Your task to perform on an android device: delete a single message in the gmail app Image 0: 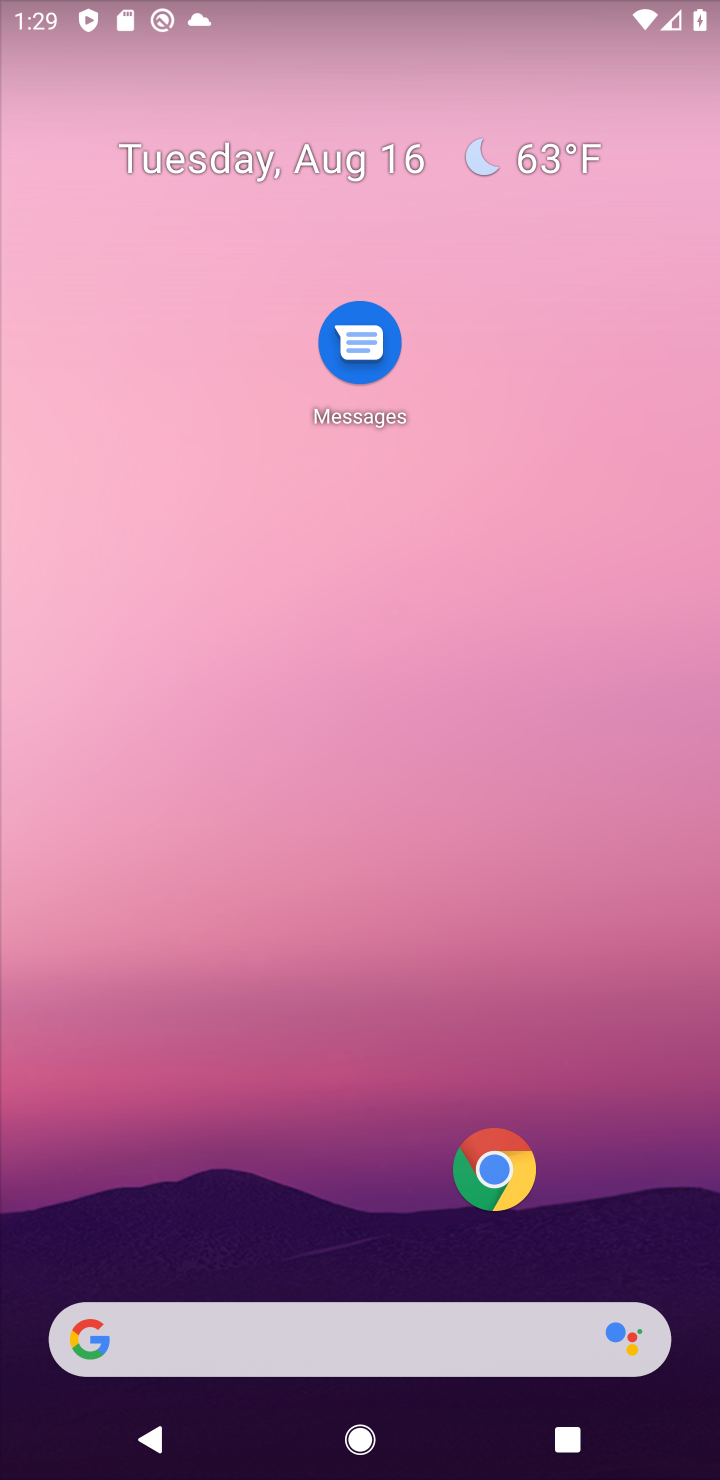
Step 0: drag from (53, 1422) to (445, 489)
Your task to perform on an android device: delete a single message in the gmail app Image 1: 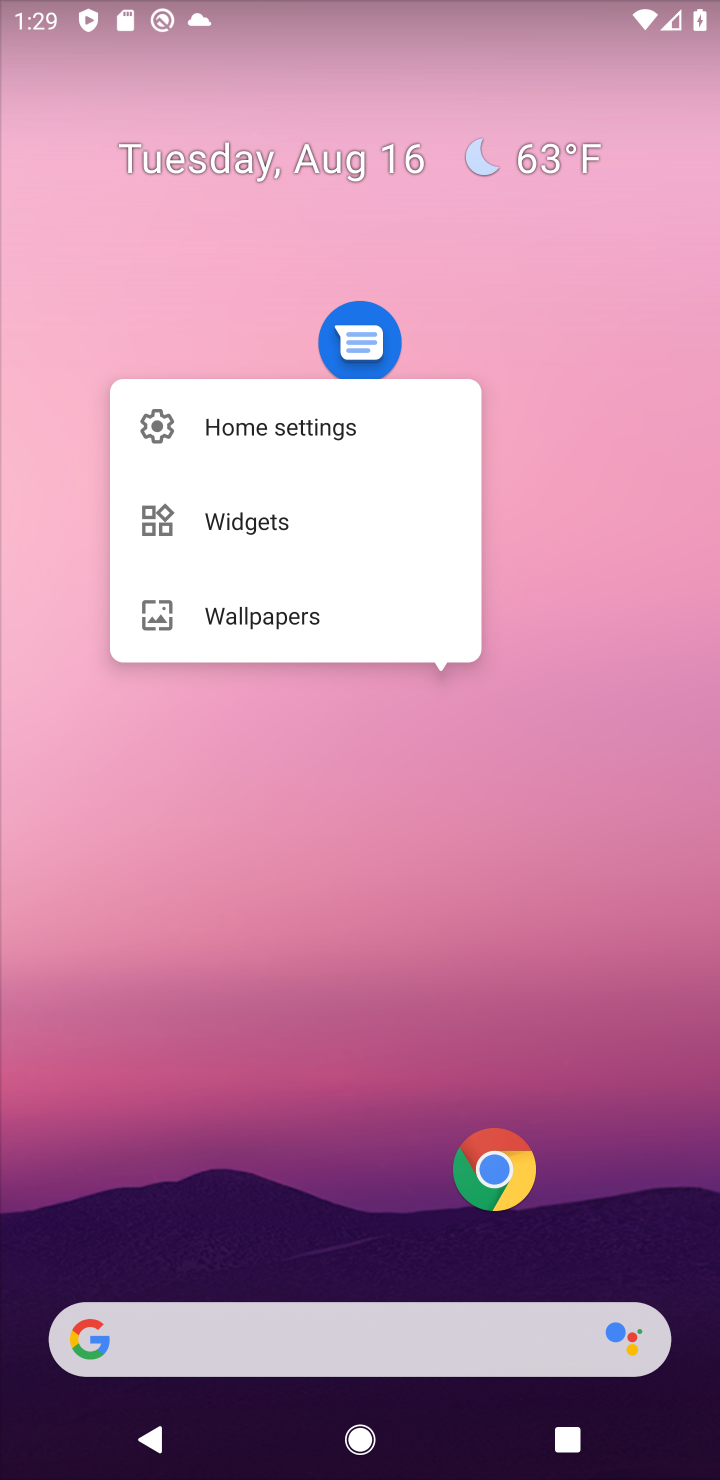
Step 1: drag from (69, 1401) to (620, 575)
Your task to perform on an android device: delete a single message in the gmail app Image 2: 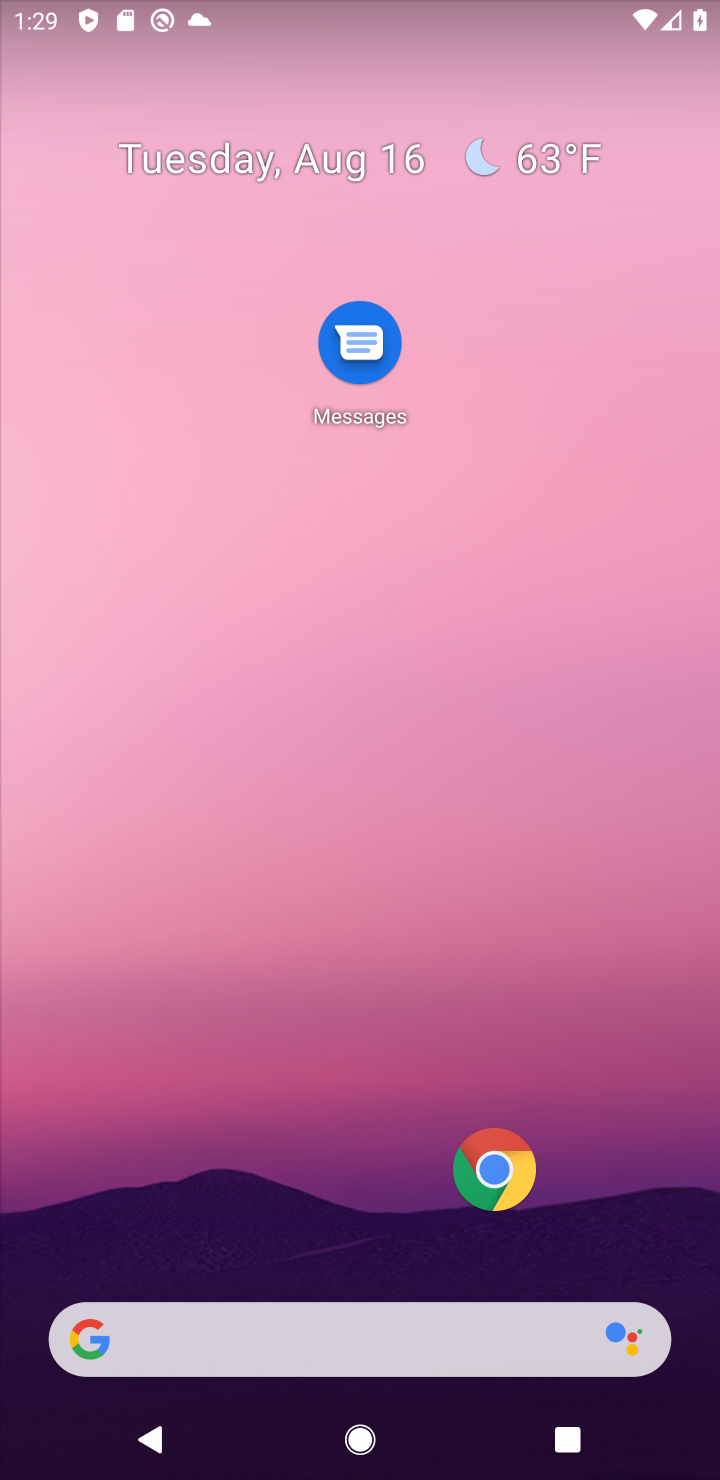
Step 2: drag from (60, 1416) to (376, 569)
Your task to perform on an android device: delete a single message in the gmail app Image 3: 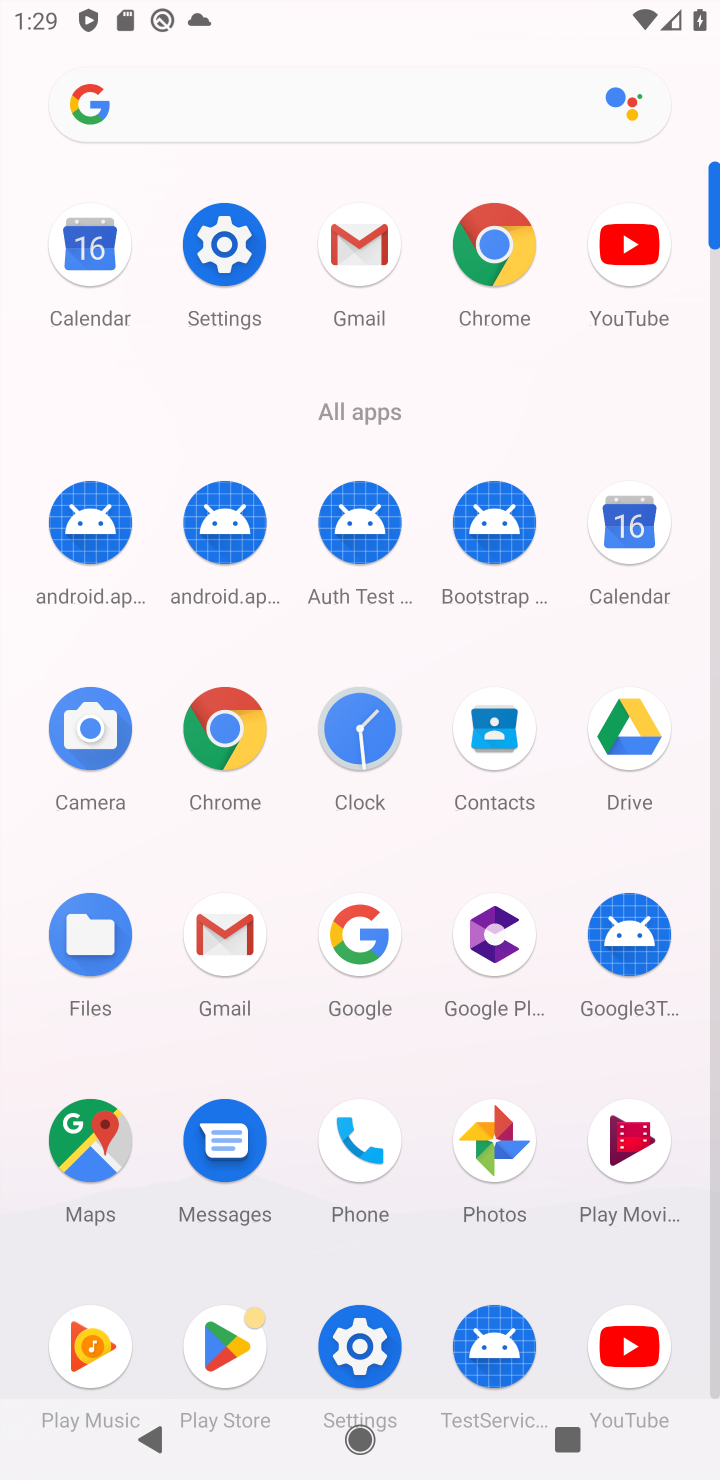
Step 3: click (356, 265)
Your task to perform on an android device: delete a single message in the gmail app Image 4: 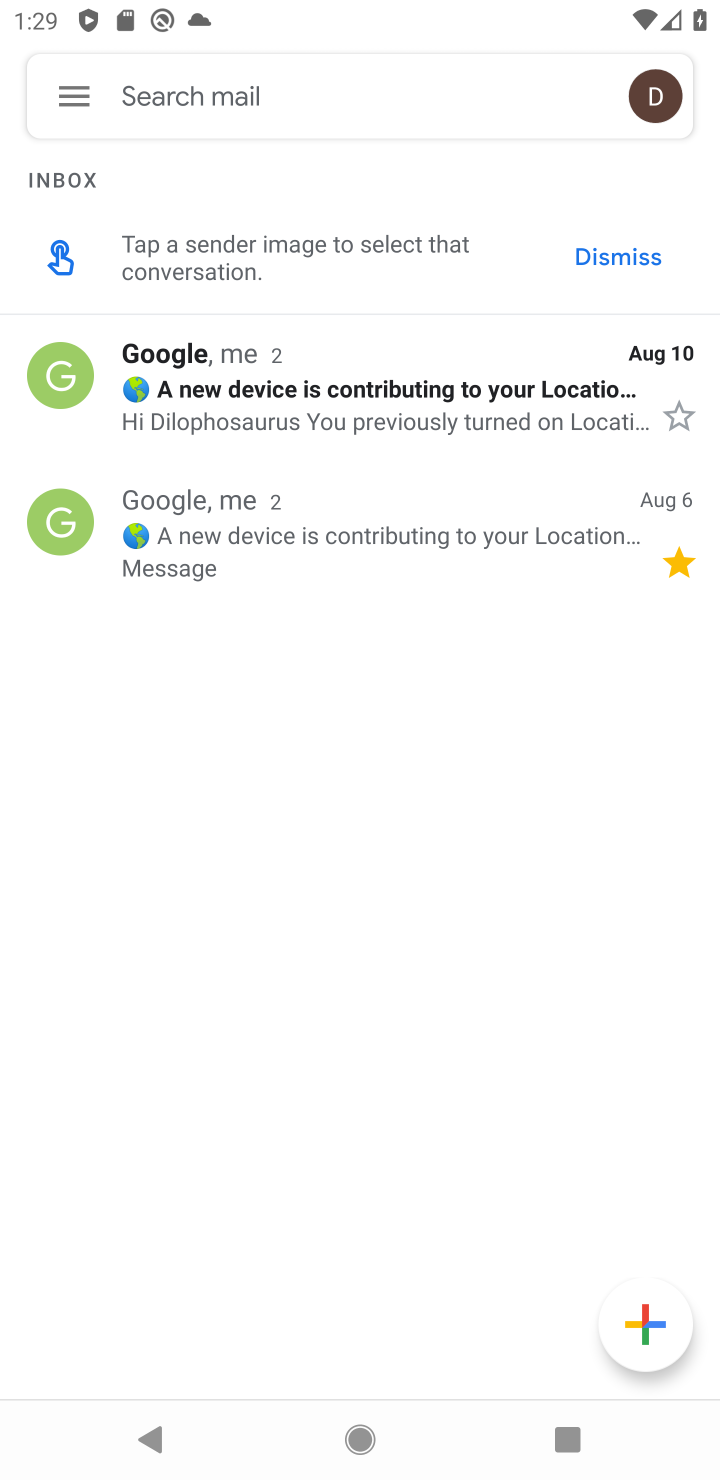
Step 4: click (308, 392)
Your task to perform on an android device: delete a single message in the gmail app Image 5: 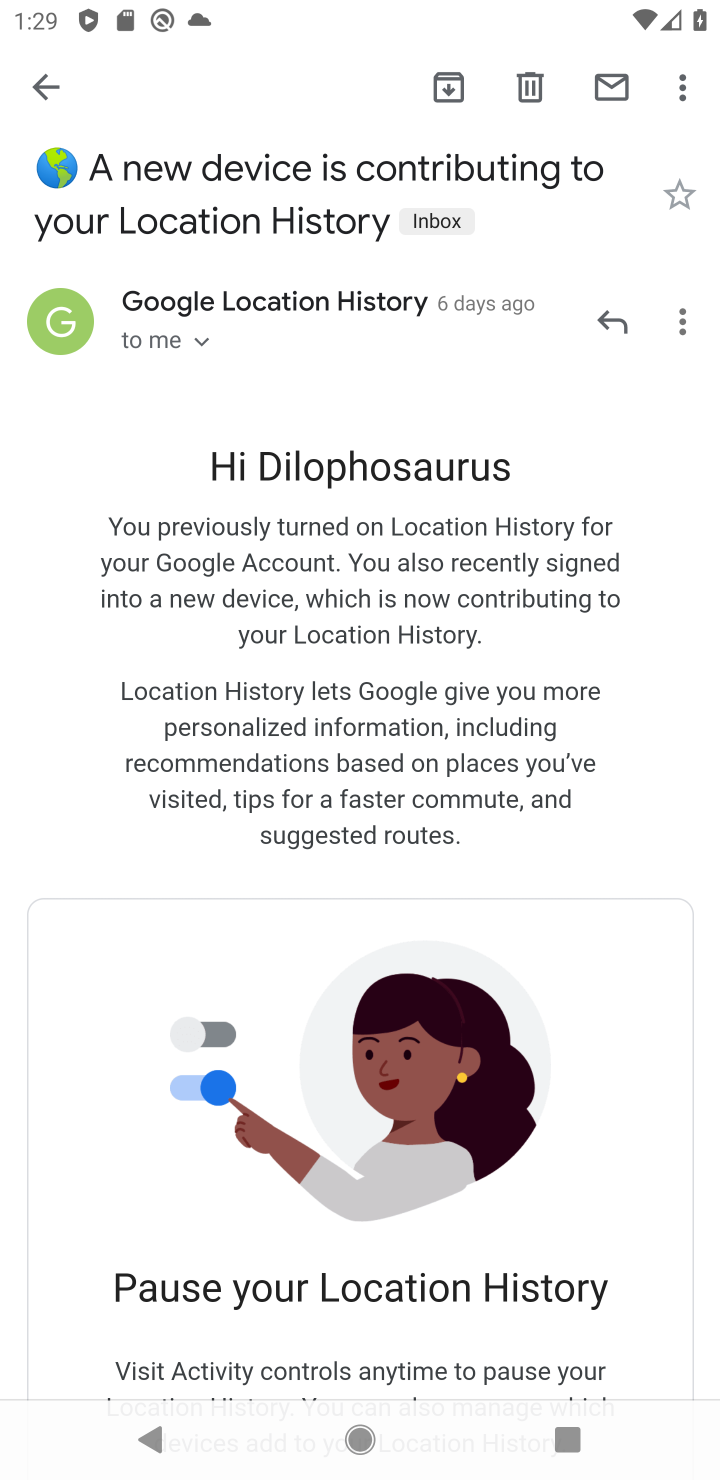
Step 5: click (536, 97)
Your task to perform on an android device: delete a single message in the gmail app Image 6: 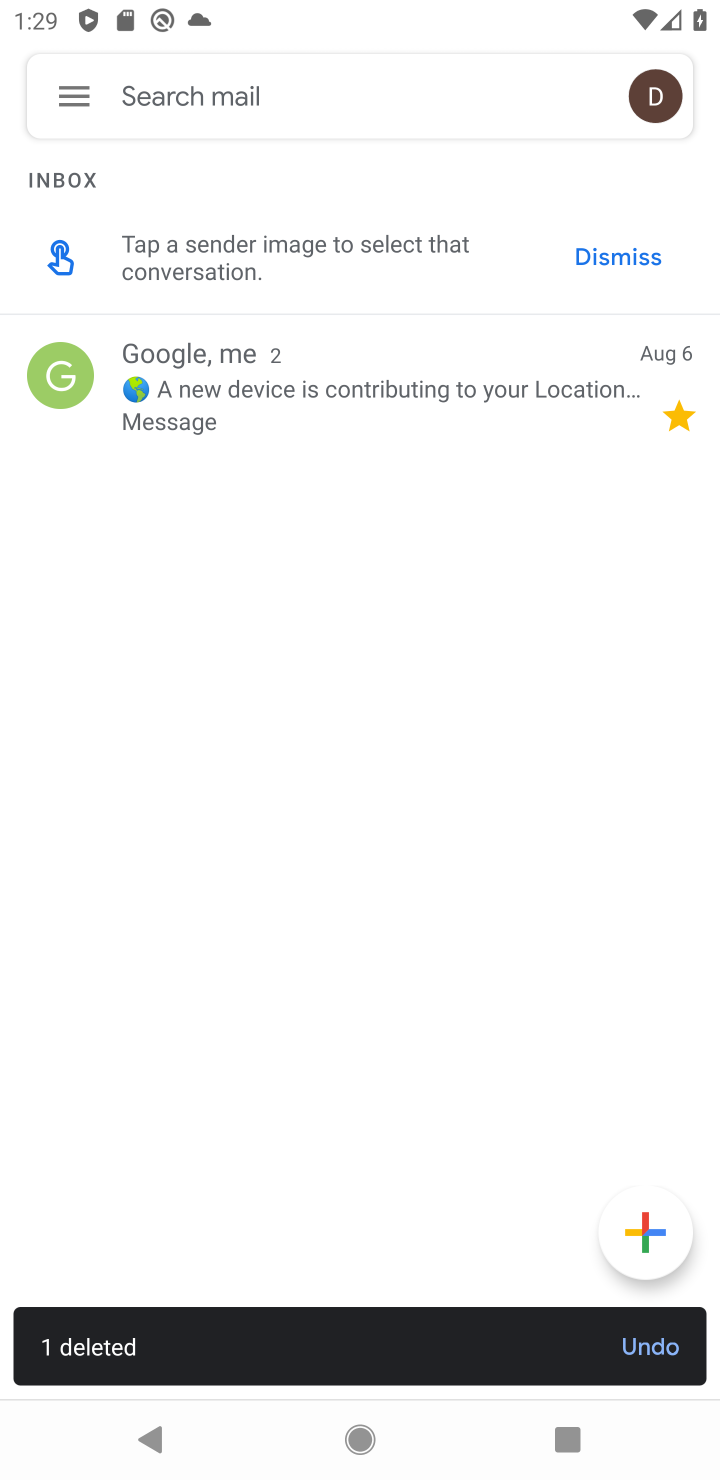
Step 6: task complete